Your task to perform on an android device: Search for sushi restaurants on Maps Image 0: 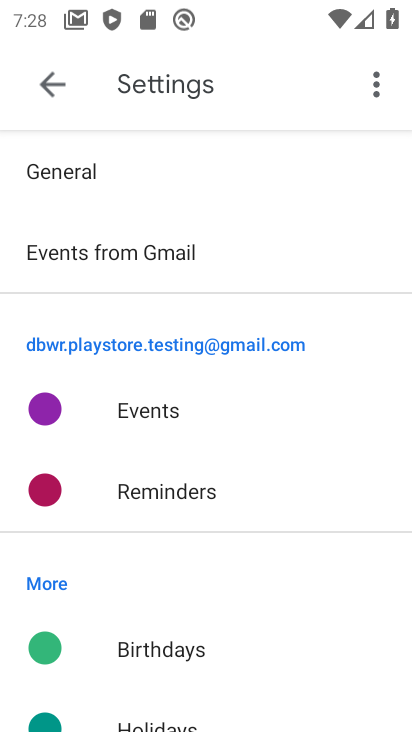
Step 0: press home button
Your task to perform on an android device: Search for sushi restaurants on Maps Image 1: 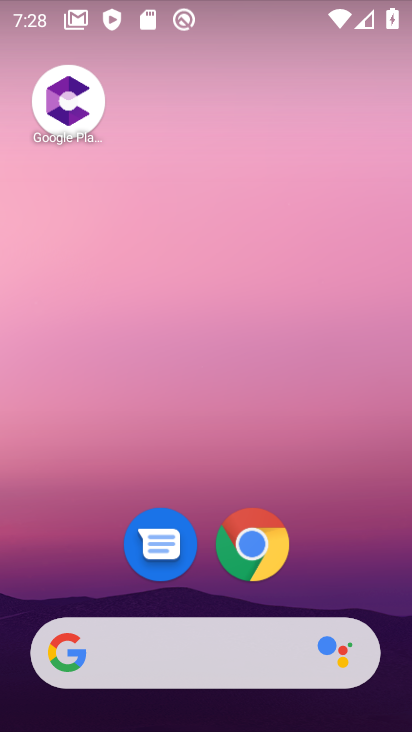
Step 1: drag from (346, 557) to (161, 0)
Your task to perform on an android device: Search for sushi restaurants on Maps Image 2: 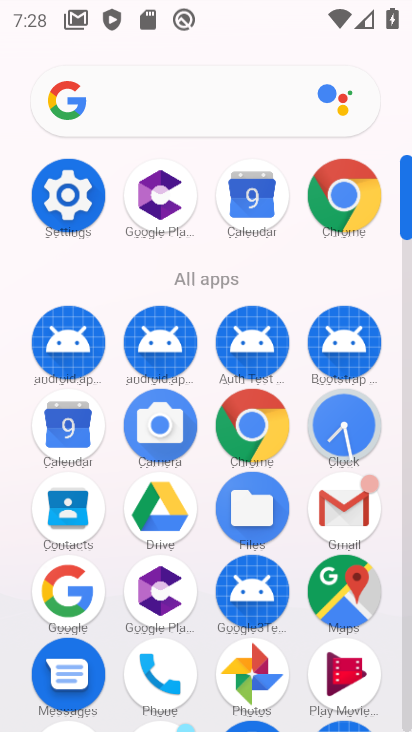
Step 2: click (324, 587)
Your task to perform on an android device: Search for sushi restaurants on Maps Image 3: 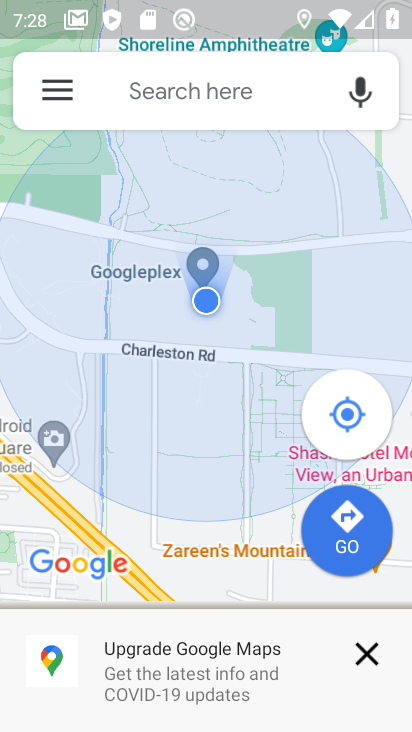
Step 3: click (220, 109)
Your task to perform on an android device: Search for sushi restaurants on Maps Image 4: 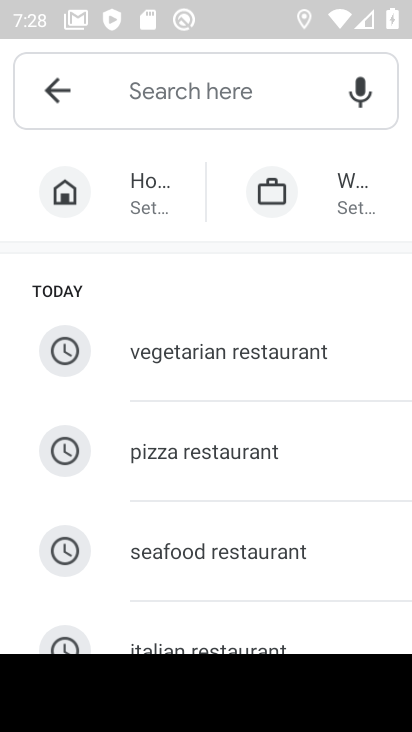
Step 4: drag from (329, 573) to (328, 200)
Your task to perform on an android device: Search for sushi restaurants on Maps Image 5: 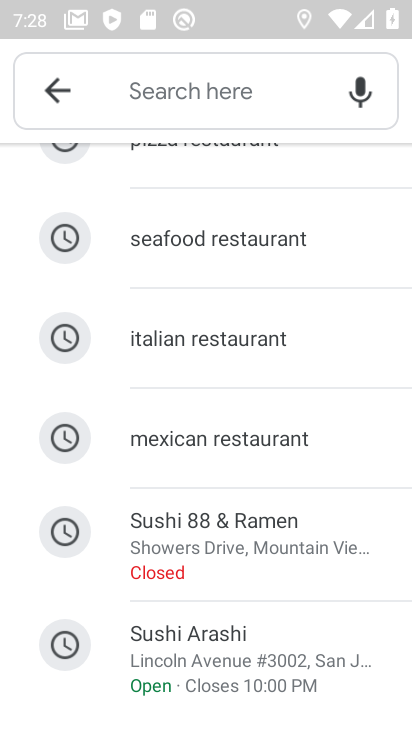
Step 5: click (192, 97)
Your task to perform on an android device: Search for sushi restaurants on Maps Image 6: 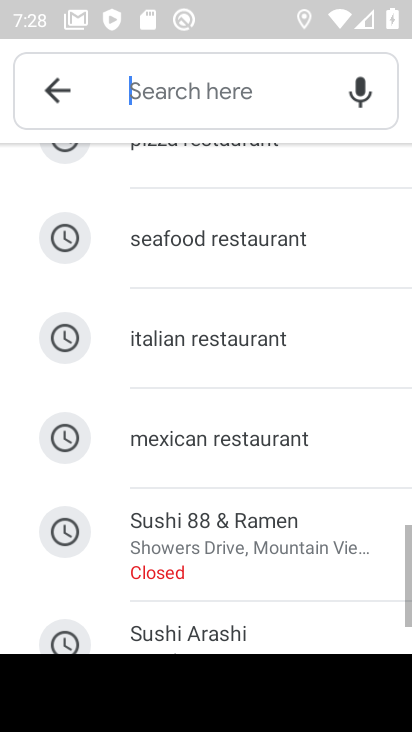
Step 6: drag from (358, 261) to (400, 609)
Your task to perform on an android device: Search for sushi restaurants on Maps Image 7: 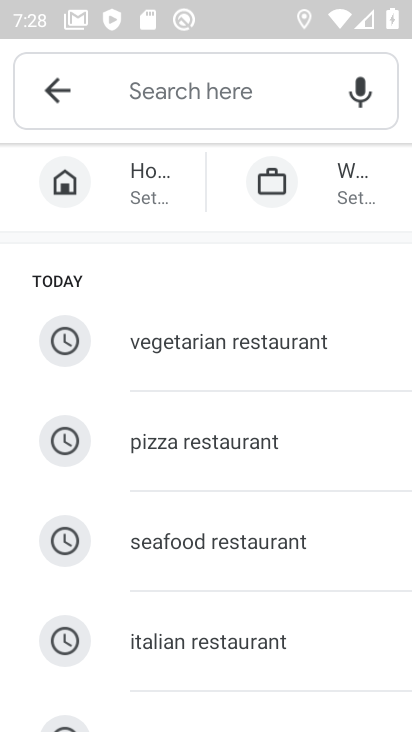
Step 7: drag from (340, 287) to (382, 570)
Your task to perform on an android device: Search for sushi restaurants on Maps Image 8: 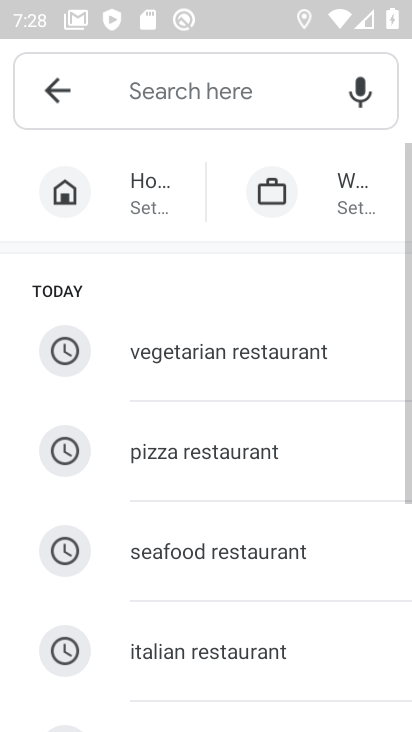
Step 8: click (208, 89)
Your task to perform on an android device: Search for sushi restaurants on Maps Image 9: 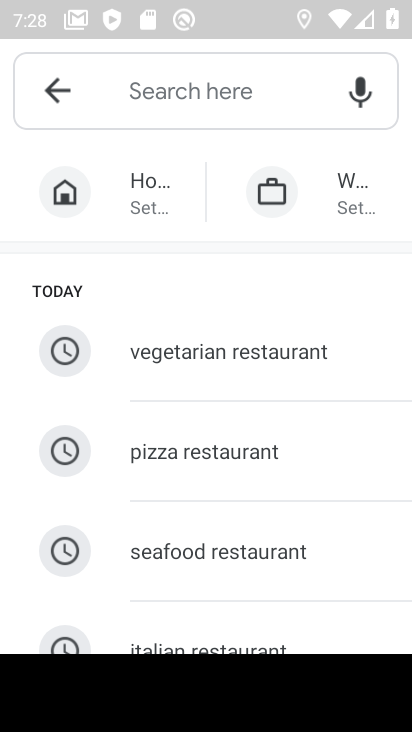
Step 9: type "sushi resturents"
Your task to perform on an android device: Search for sushi restaurants on Maps Image 10: 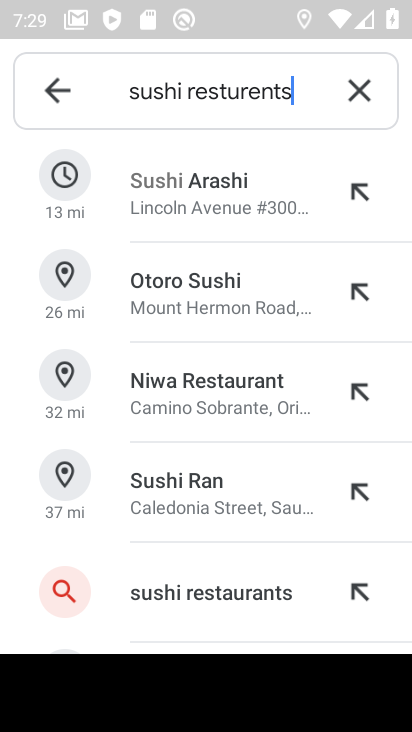
Step 10: click (228, 589)
Your task to perform on an android device: Search for sushi restaurants on Maps Image 11: 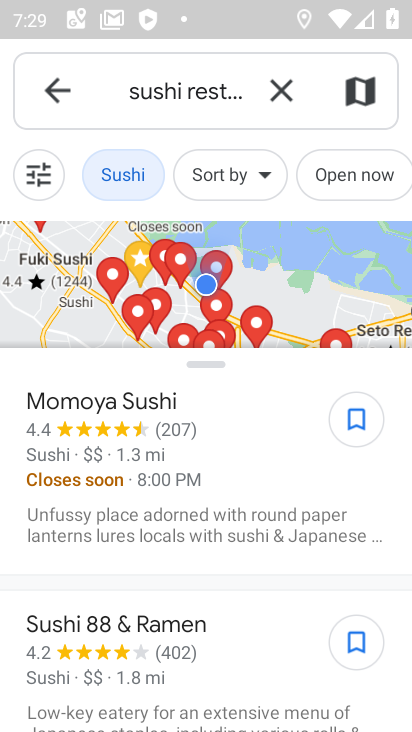
Step 11: task complete